Your task to perform on an android device: Go to Reddit.com Image 0: 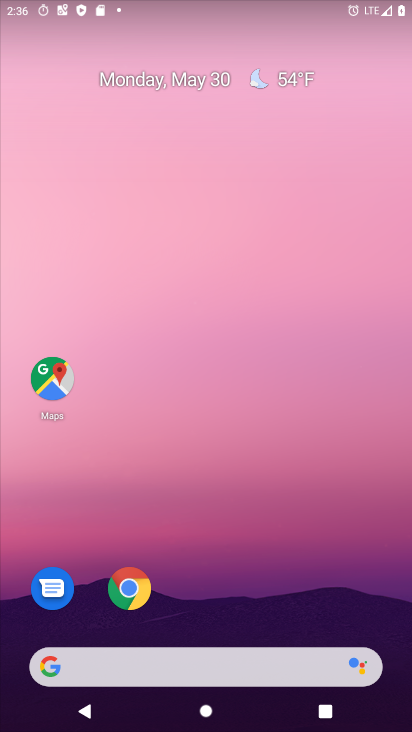
Step 0: drag from (194, 589) to (187, 167)
Your task to perform on an android device: Go to Reddit.com Image 1: 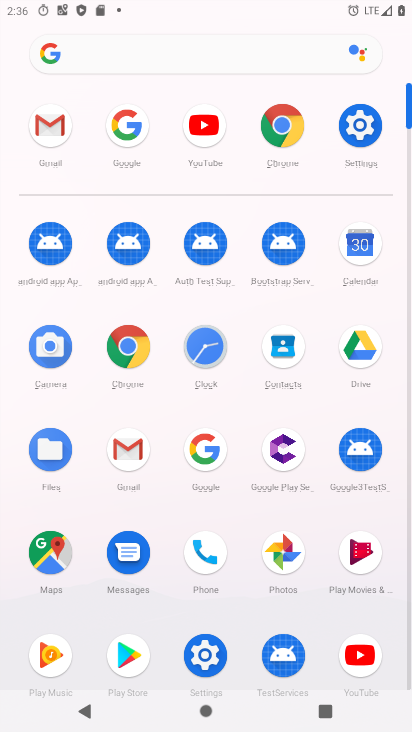
Step 1: click (127, 124)
Your task to perform on an android device: Go to Reddit.com Image 2: 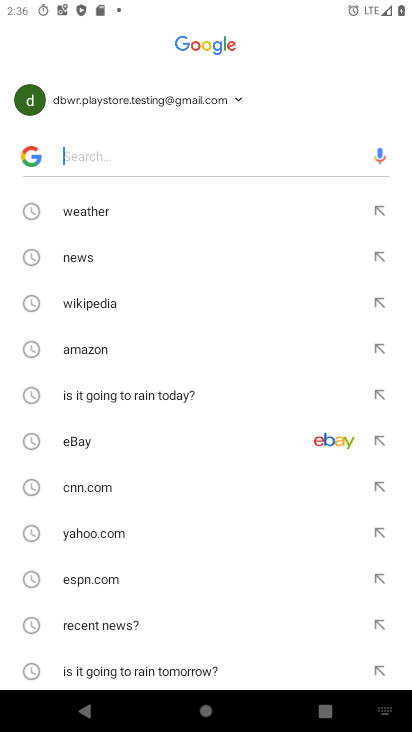
Step 2: drag from (178, 559) to (211, 140)
Your task to perform on an android device: Go to Reddit.com Image 3: 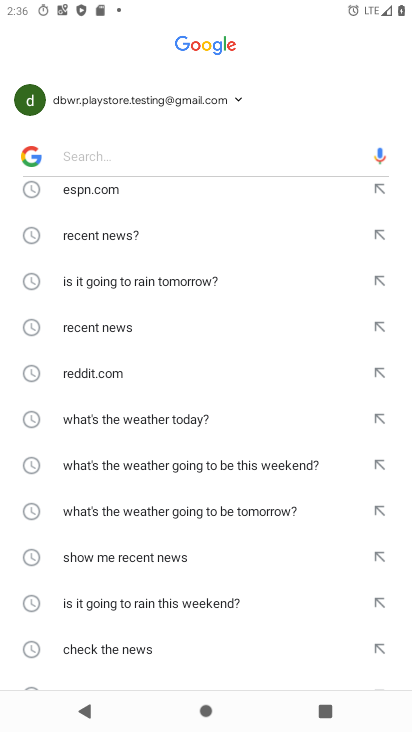
Step 3: click (114, 368)
Your task to perform on an android device: Go to Reddit.com Image 4: 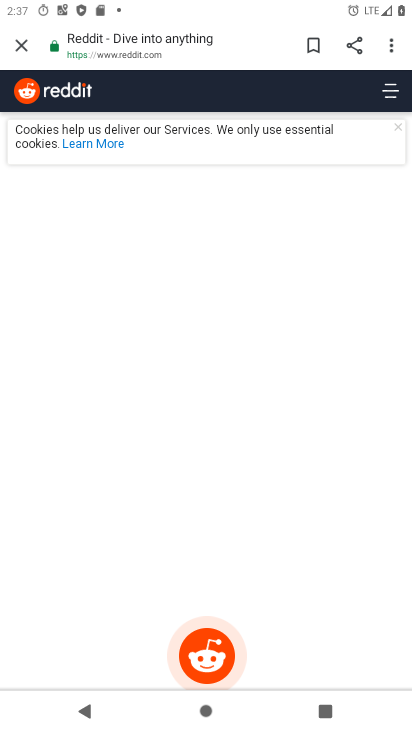
Step 4: task complete